Your task to perform on an android device: clear history in the chrome app Image 0: 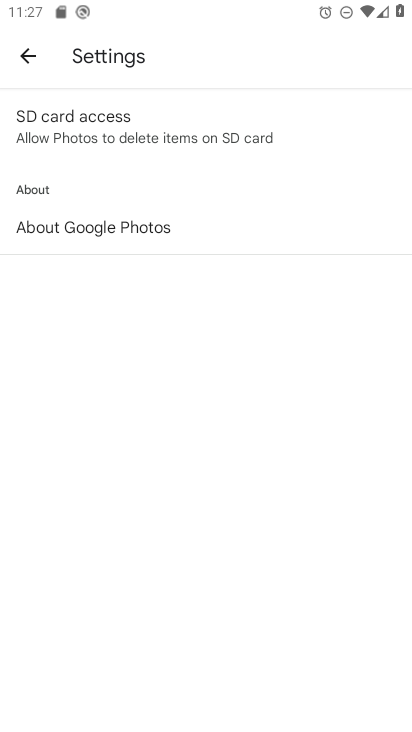
Step 0: press home button
Your task to perform on an android device: clear history in the chrome app Image 1: 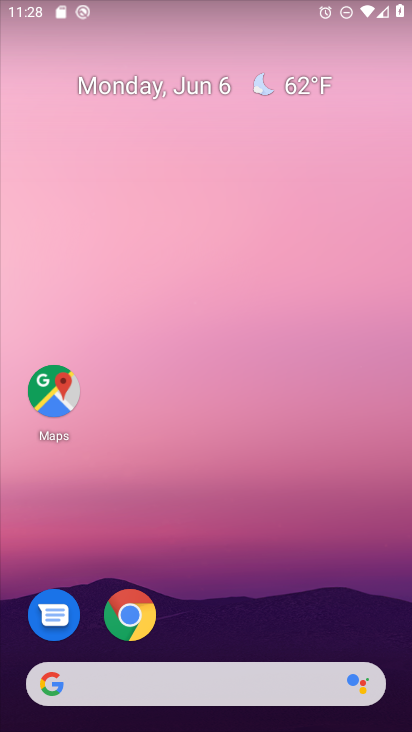
Step 1: click (142, 621)
Your task to perform on an android device: clear history in the chrome app Image 2: 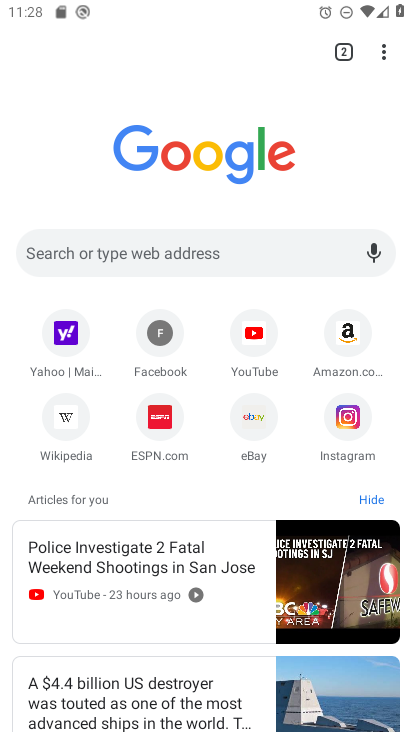
Step 2: drag from (381, 56) to (186, 494)
Your task to perform on an android device: clear history in the chrome app Image 3: 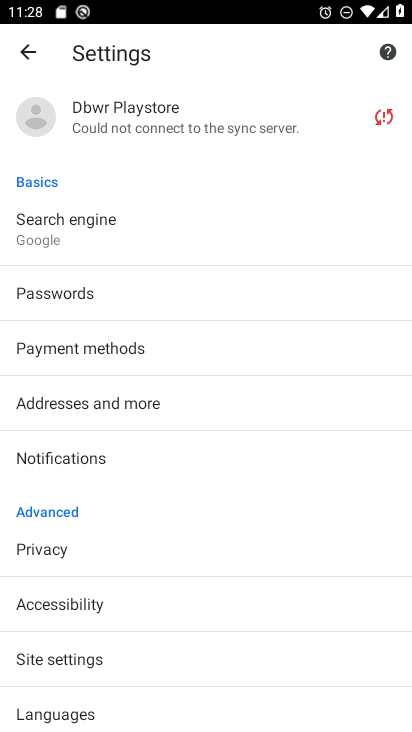
Step 3: click (102, 554)
Your task to perform on an android device: clear history in the chrome app Image 4: 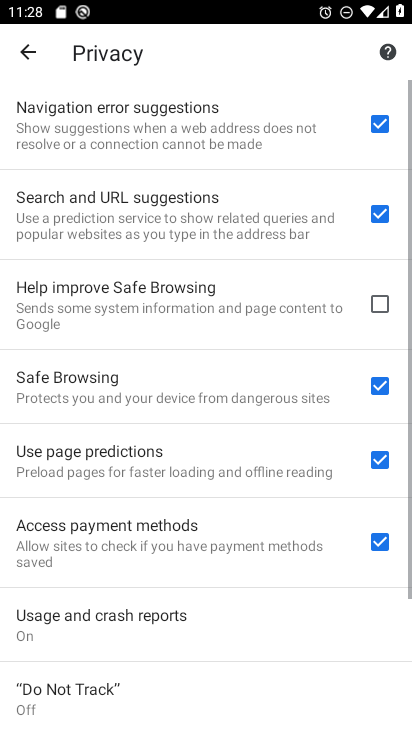
Step 4: drag from (176, 610) to (164, 31)
Your task to perform on an android device: clear history in the chrome app Image 5: 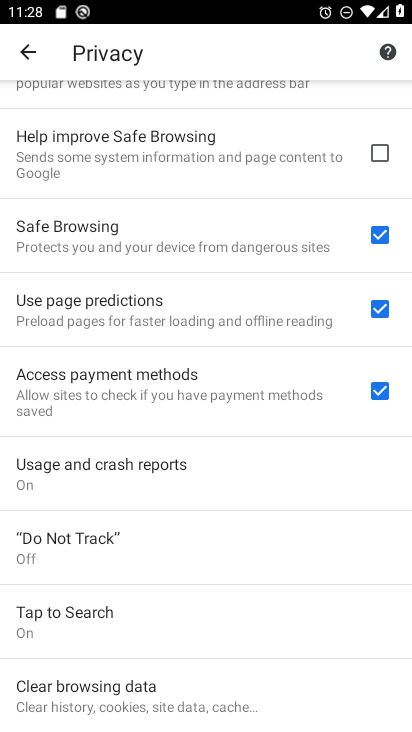
Step 5: click (103, 695)
Your task to perform on an android device: clear history in the chrome app Image 6: 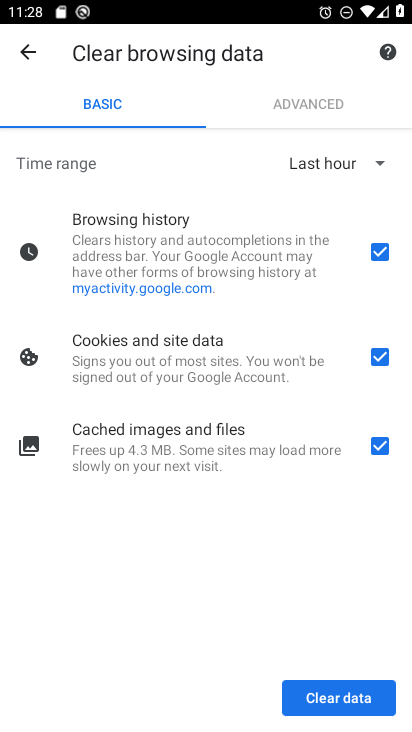
Step 6: click (324, 689)
Your task to perform on an android device: clear history in the chrome app Image 7: 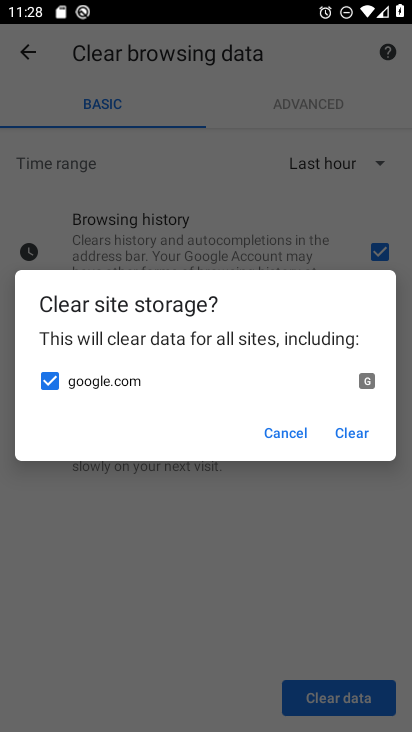
Step 7: click (337, 432)
Your task to perform on an android device: clear history in the chrome app Image 8: 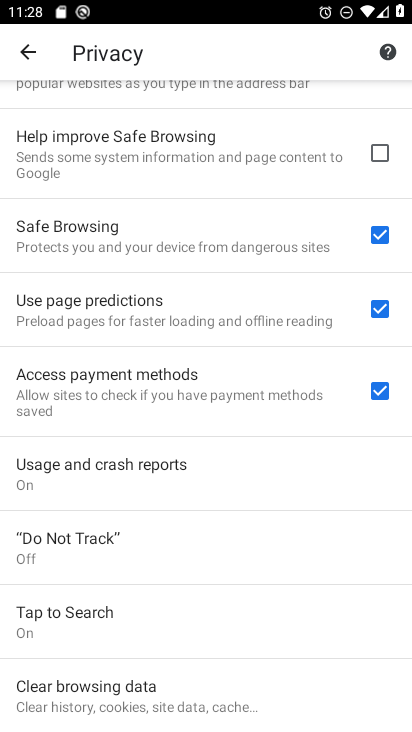
Step 8: task complete